Your task to perform on an android device: turn notification dots on Image 0: 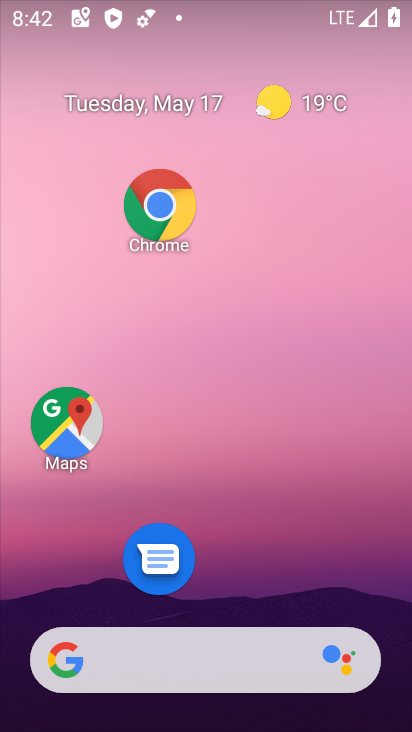
Step 0: drag from (271, 126) to (271, 72)
Your task to perform on an android device: turn notification dots on Image 1: 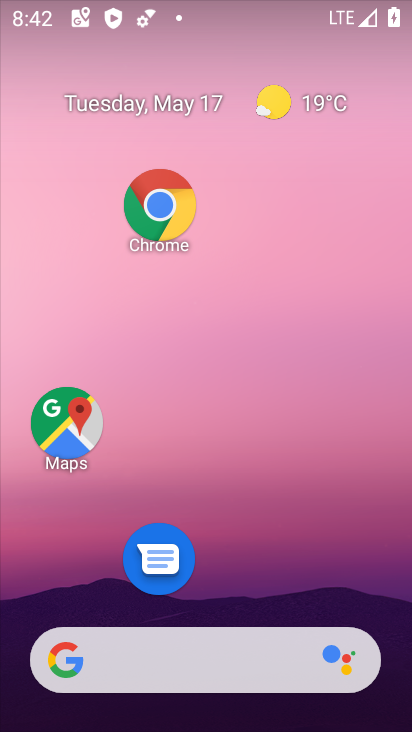
Step 1: drag from (208, 605) to (0, 14)
Your task to perform on an android device: turn notification dots on Image 2: 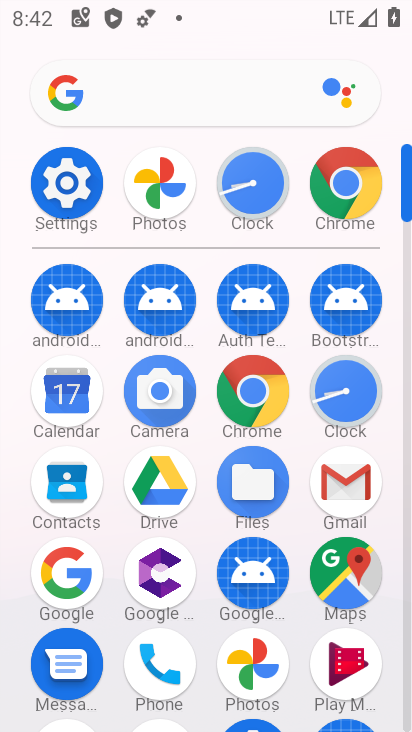
Step 2: click (85, 185)
Your task to perform on an android device: turn notification dots on Image 3: 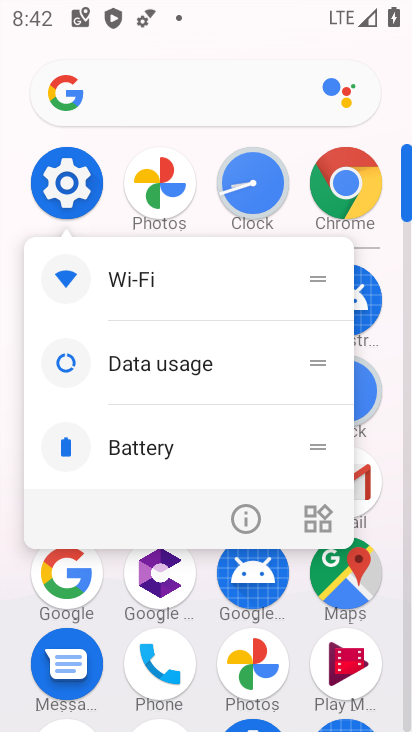
Step 3: click (246, 521)
Your task to perform on an android device: turn notification dots on Image 4: 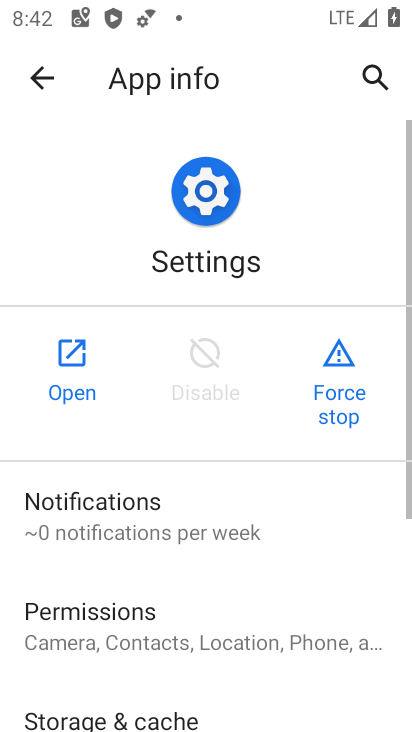
Step 4: click (55, 356)
Your task to perform on an android device: turn notification dots on Image 5: 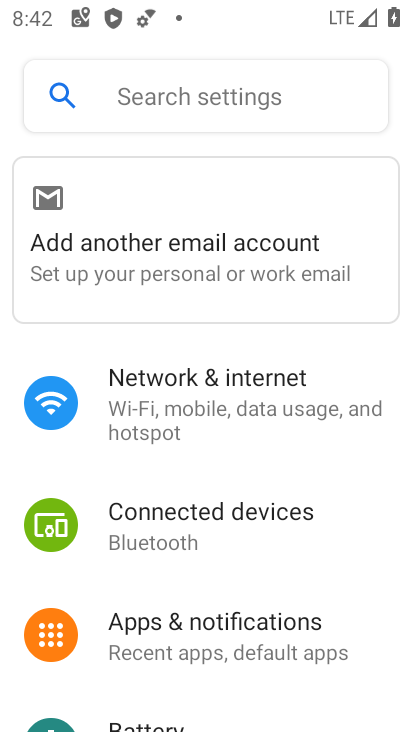
Step 5: drag from (220, 690) to (211, 233)
Your task to perform on an android device: turn notification dots on Image 6: 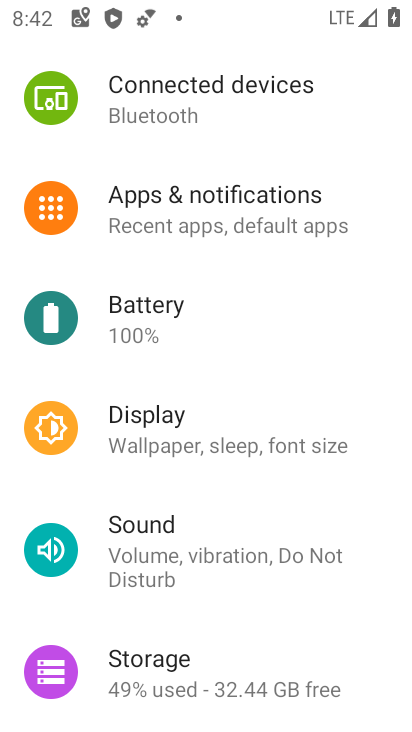
Step 6: click (164, 235)
Your task to perform on an android device: turn notification dots on Image 7: 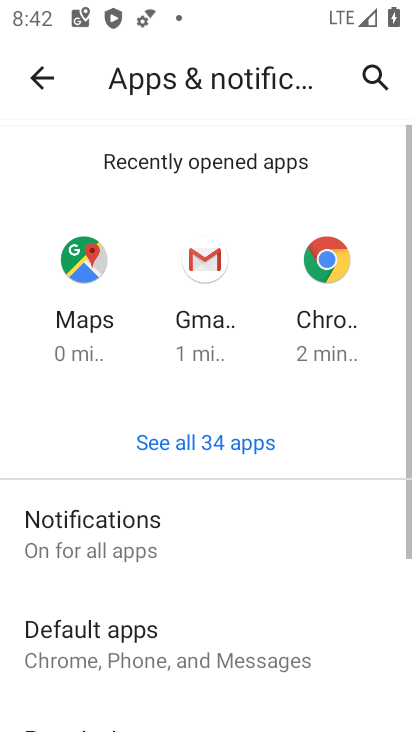
Step 7: drag from (166, 637) to (174, 200)
Your task to perform on an android device: turn notification dots on Image 8: 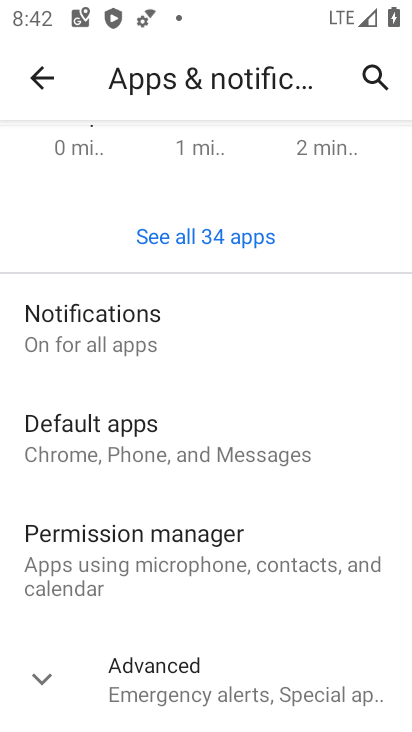
Step 8: drag from (196, 553) to (267, 199)
Your task to perform on an android device: turn notification dots on Image 9: 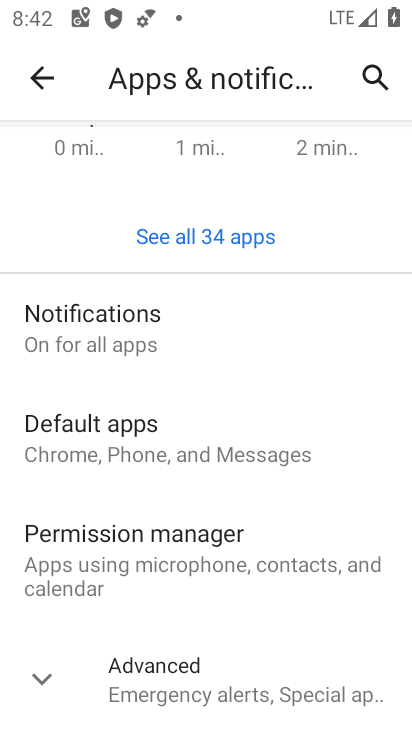
Step 9: drag from (173, 659) to (190, 220)
Your task to perform on an android device: turn notification dots on Image 10: 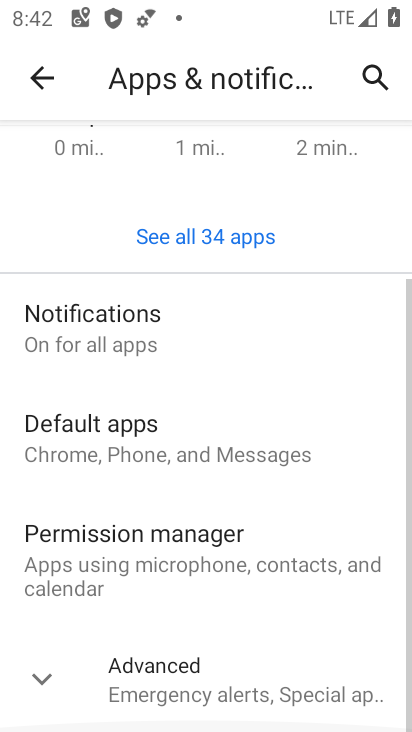
Step 10: click (141, 292)
Your task to perform on an android device: turn notification dots on Image 11: 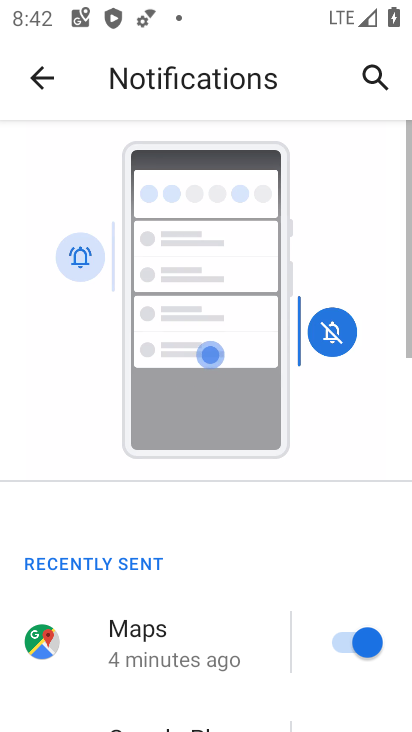
Step 11: drag from (241, 588) to (282, 12)
Your task to perform on an android device: turn notification dots on Image 12: 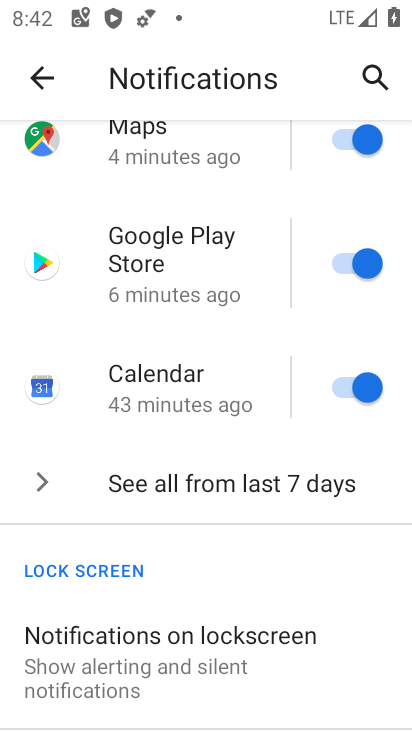
Step 12: drag from (150, 661) to (250, 10)
Your task to perform on an android device: turn notification dots on Image 13: 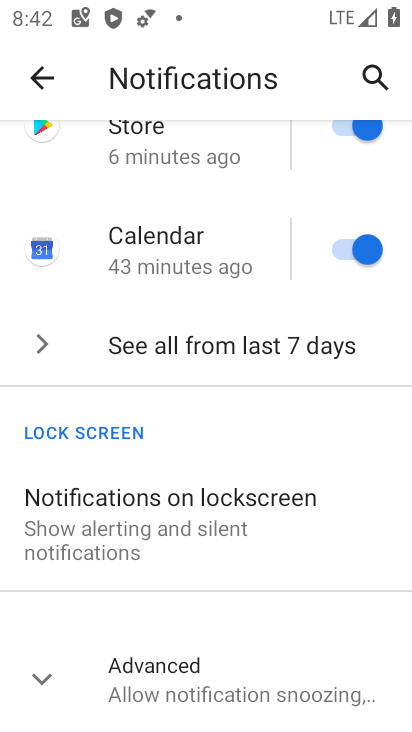
Step 13: click (184, 662)
Your task to perform on an android device: turn notification dots on Image 14: 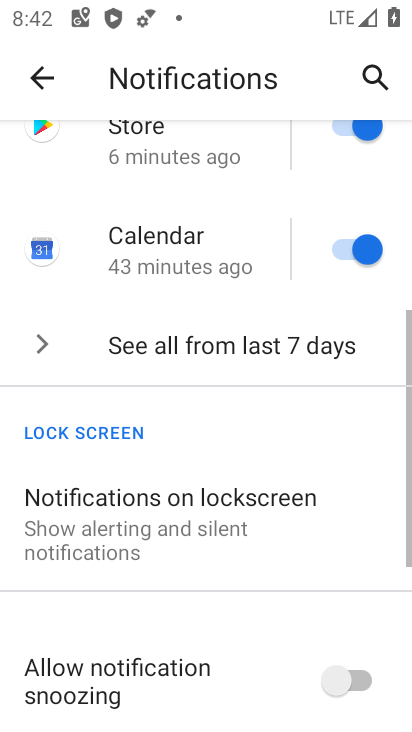
Step 14: drag from (222, 607) to (162, 15)
Your task to perform on an android device: turn notification dots on Image 15: 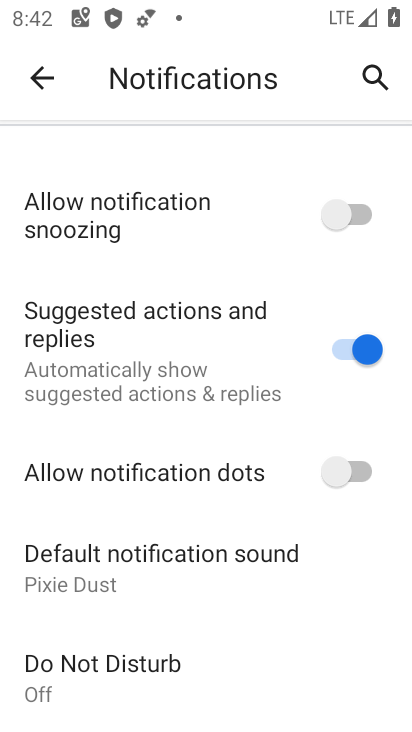
Step 15: click (321, 471)
Your task to perform on an android device: turn notification dots on Image 16: 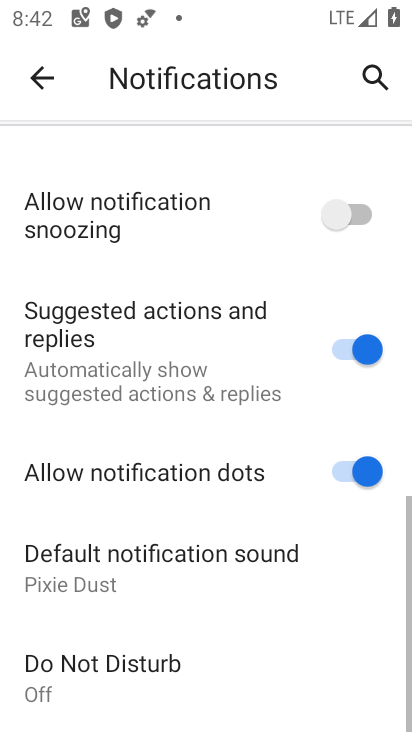
Step 16: task complete